Your task to perform on an android device: turn on javascript in the chrome app Image 0: 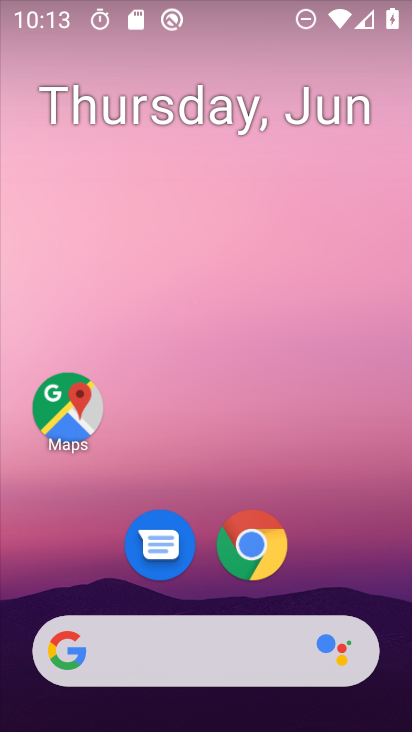
Step 0: click (256, 536)
Your task to perform on an android device: turn on javascript in the chrome app Image 1: 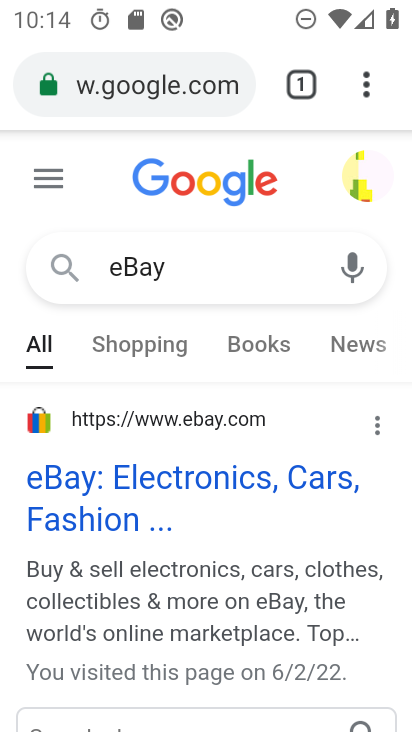
Step 1: click (368, 82)
Your task to perform on an android device: turn on javascript in the chrome app Image 2: 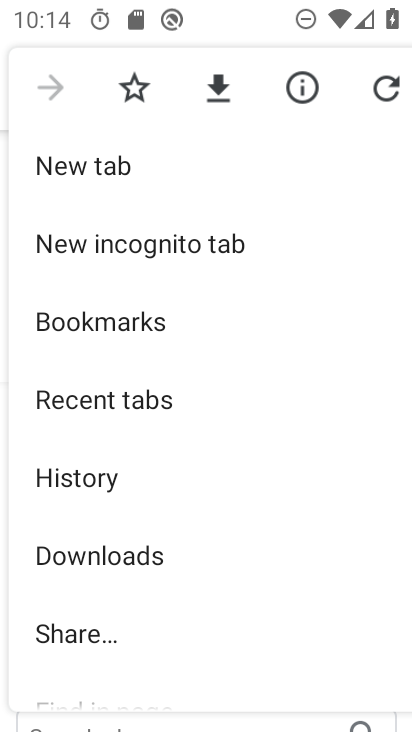
Step 2: drag from (135, 558) to (225, 51)
Your task to perform on an android device: turn on javascript in the chrome app Image 3: 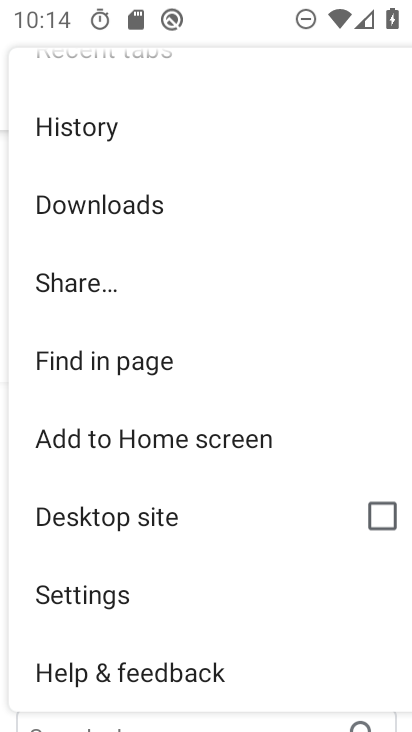
Step 3: click (94, 606)
Your task to perform on an android device: turn on javascript in the chrome app Image 4: 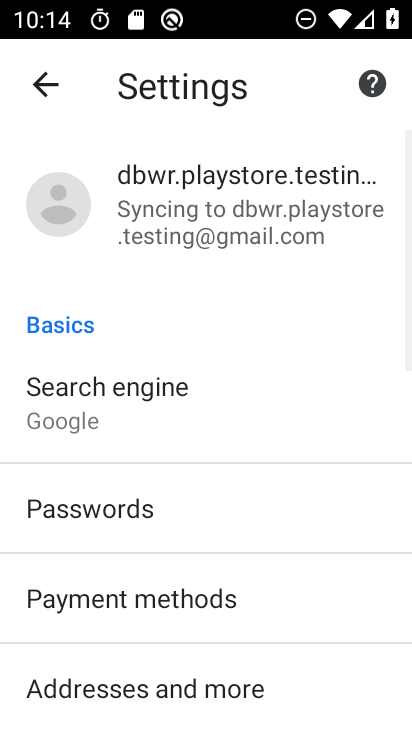
Step 4: drag from (226, 623) to (283, 276)
Your task to perform on an android device: turn on javascript in the chrome app Image 5: 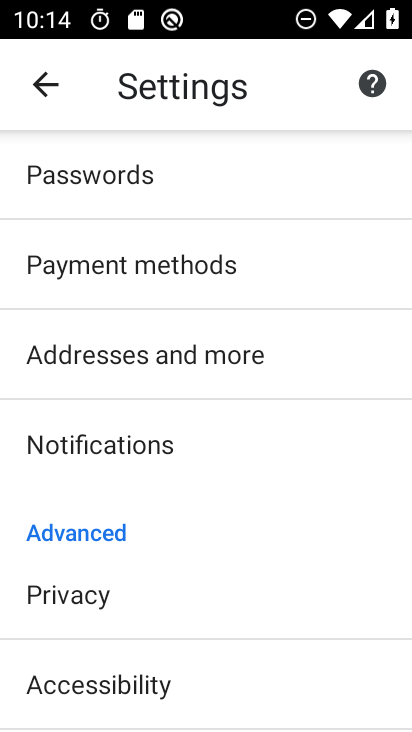
Step 5: drag from (173, 644) to (257, 301)
Your task to perform on an android device: turn on javascript in the chrome app Image 6: 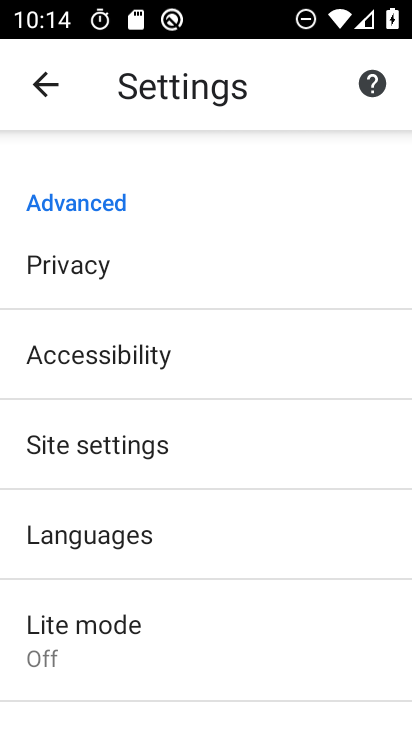
Step 6: drag from (155, 614) to (208, 375)
Your task to perform on an android device: turn on javascript in the chrome app Image 7: 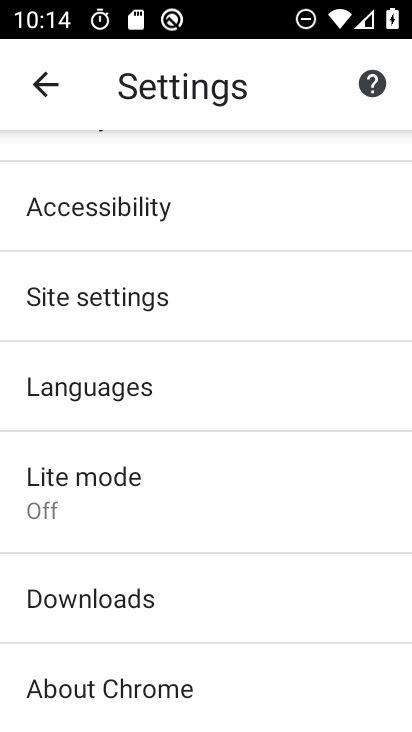
Step 7: click (139, 300)
Your task to perform on an android device: turn on javascript in the chrome app Image 8: 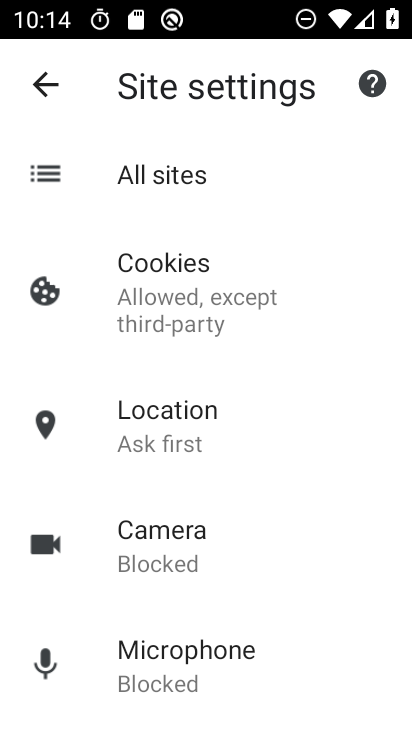
Step 8: drag from (189, 607) to (205, 352)
Your task to perform on an android device: turn on javascript in the chrome app Image 9: 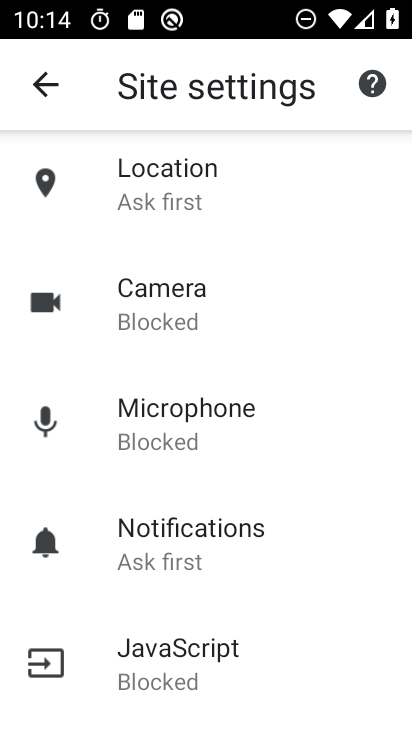
Step 9: click (185, 664)
Your task to perform on an android device: turn on javascript in the chrome app Image 10: 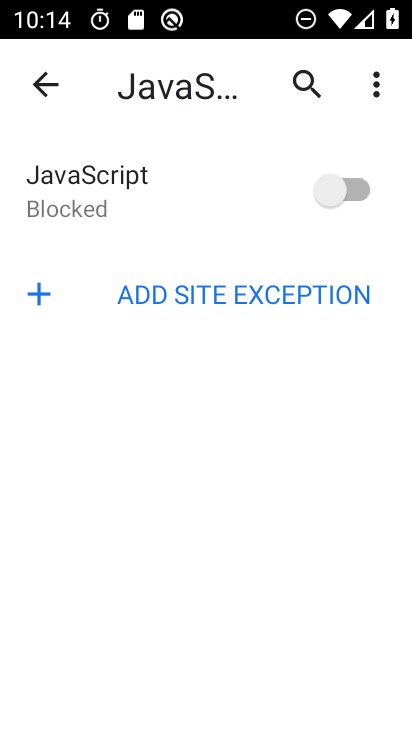
Step 10: click (354, 191)
Your task to perform on an android device: turn on javascript in the chrome app Image 11: 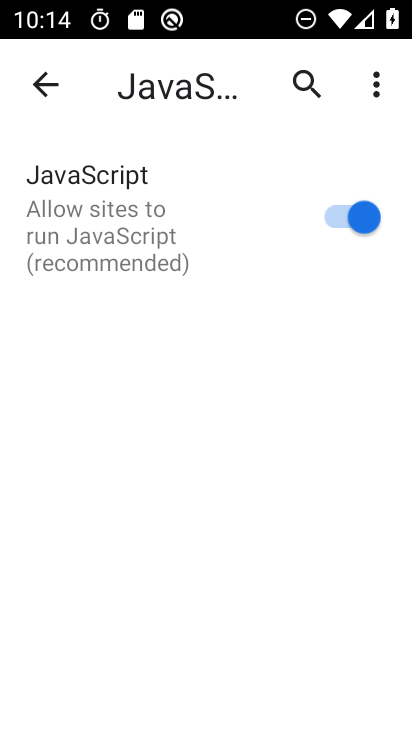
Step 11: task complete